Your task to perform on an android device: Open notification settings Image 0: 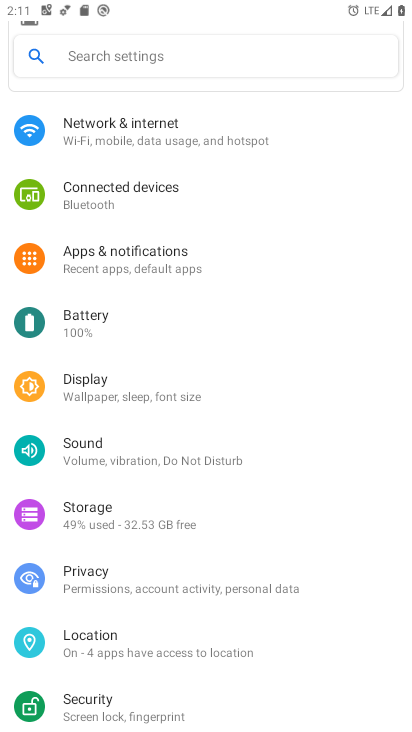
Step 0: press home button
Your task to perform on an android device: Open notification settings Image 1: 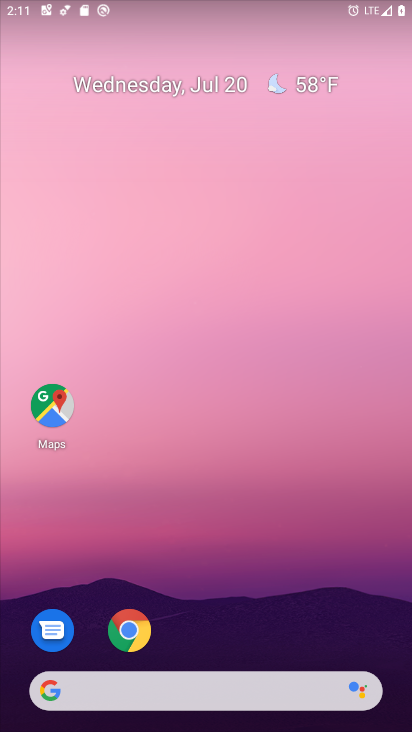
Step 1: drag from (201, 549) to (221, 218)
Your task to perform on an android device: Open notification settings Image 2: 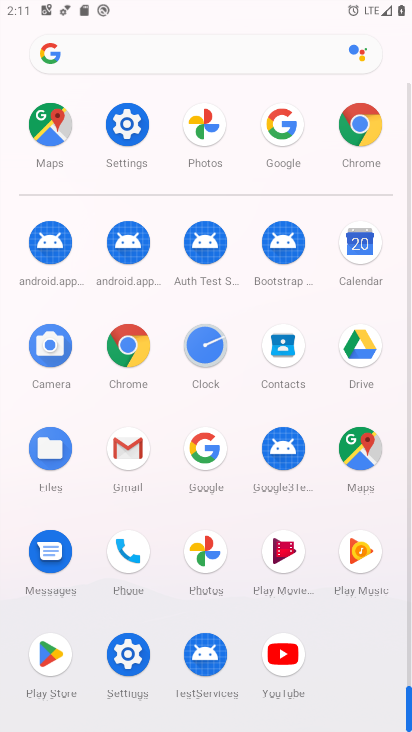
Step 2: click (125, 670)
Your task to perform on an android device: Open notification settings Image 3: 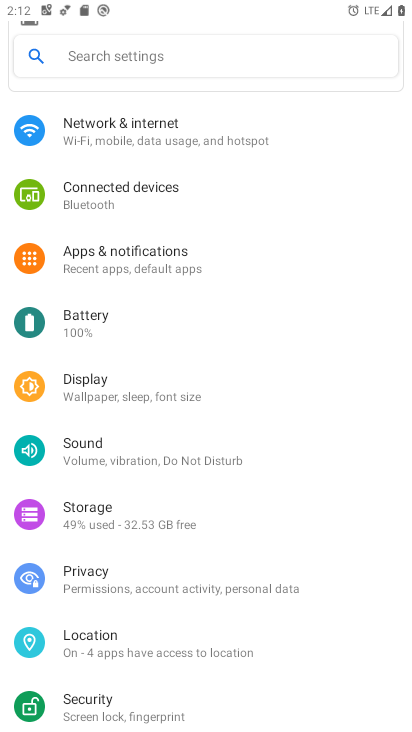
Step 3: click (160, 267)
Your task to perform on an android device: Open notification settings Image 4: 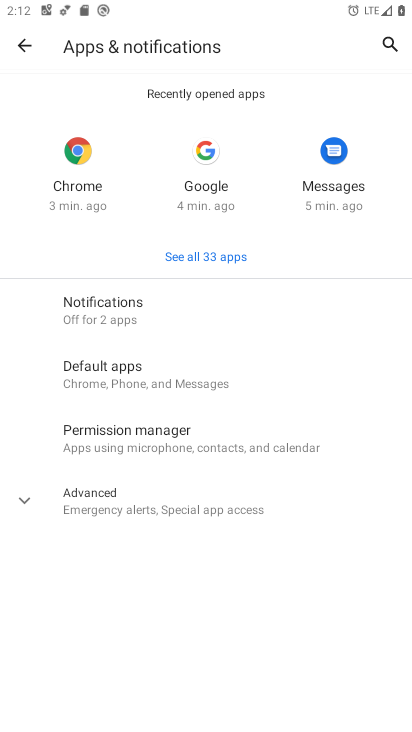
Step 4: click (132, 315)
Your task to perform on an android device: Open notification settings Image 5: 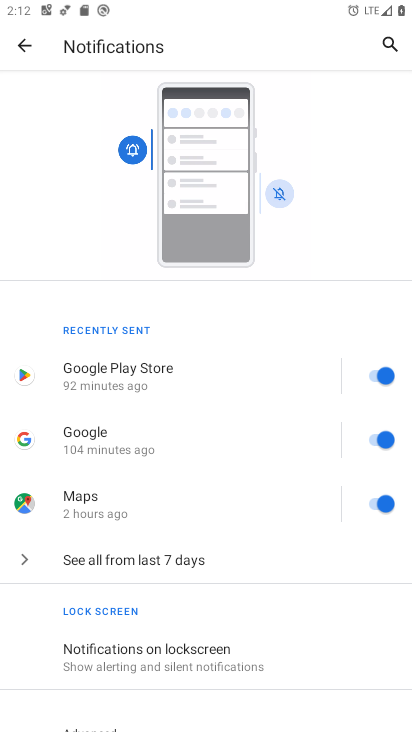
Step 5: task complete